Your task to perform on an android device: Open battery settings Image 0: 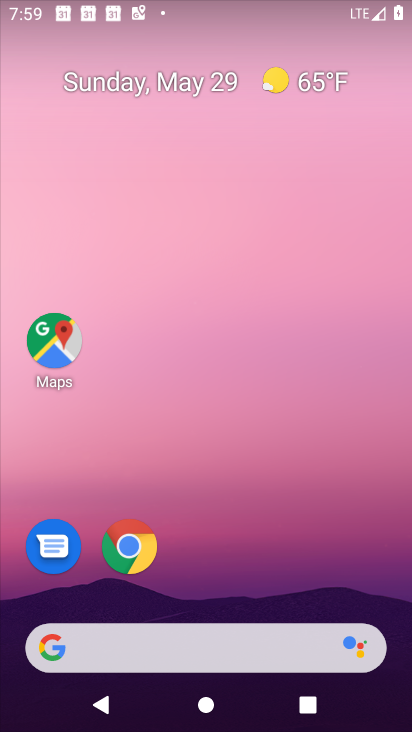
Step 0: drag from (188, 533) to (200, 346)
Your task to perform on an android device: Open battery settings Image 1: 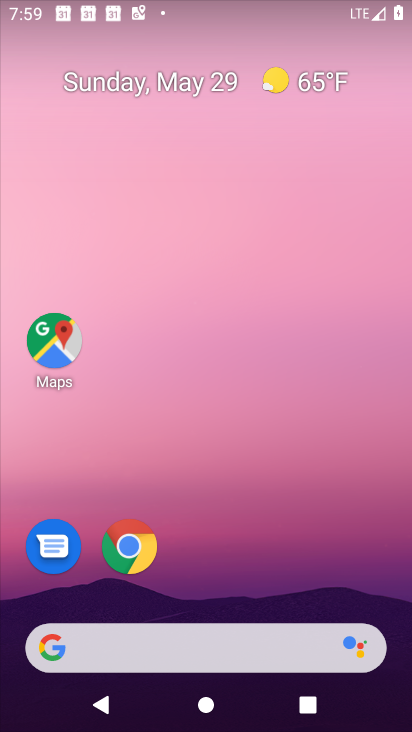
Step 1: drag from (232, 619) to (340, 0)
Your task to perform on an android device: Open battery settings Image 2: 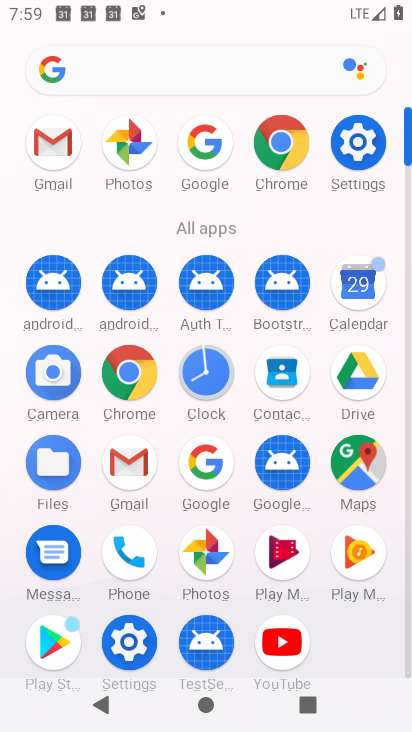
Step 2: click (362, 138)
Your task to perform on an android device: Open battery settings Image 3: 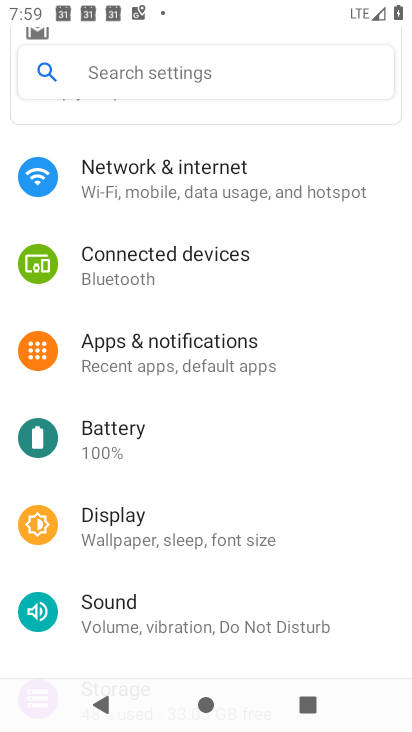
Step 3: click (153, 465)
Your task to perform on an android device: Open battery settings Image 4: 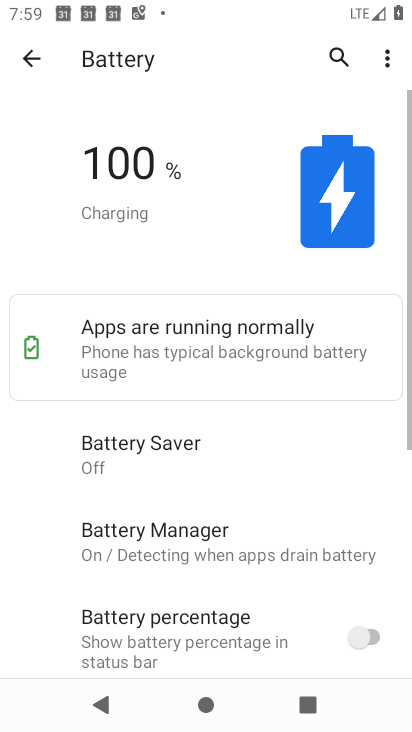
Step 4: task complete